Your task to perform on an android device: Go to notification settings Image 0: 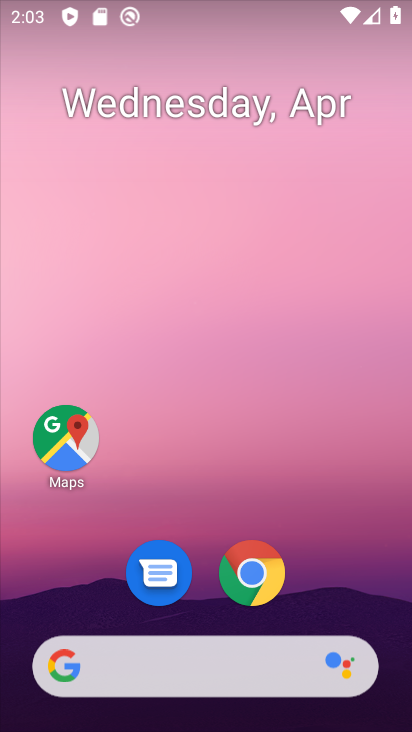
Step 0: drag from (365, 591) to (375, 262)
Your task to perform on an android device: Go to notification settings Image 1: 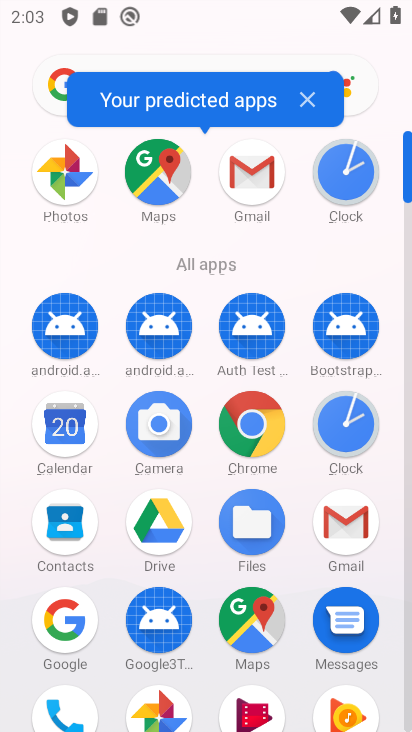
Step 1: drag from (300, 513) to (302, 334)
Your task to perform on an android device: Go to notification settings Image 2: 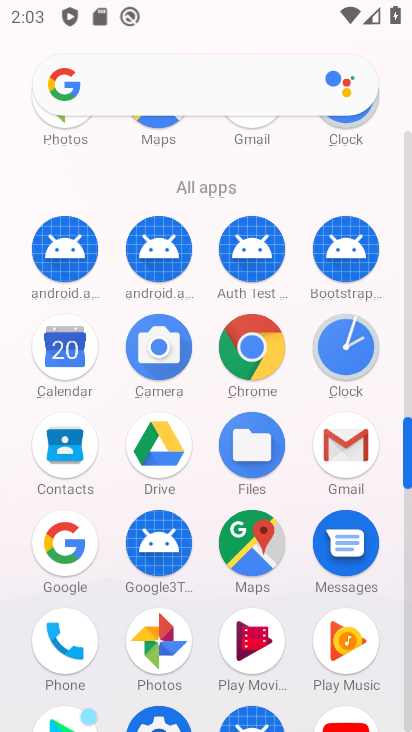
Step 2: drag from (296, 577) to (297, 360)
Your task to perform on an android device: Go to notification settings Image 3: 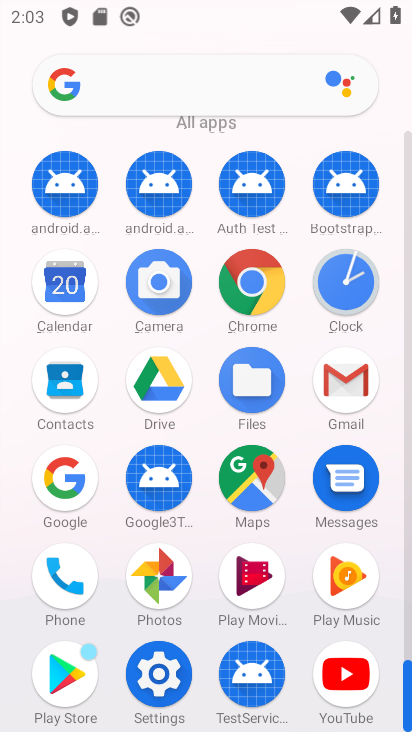
Step 3: click (158, 647)
Your task to perform on an android device: Go to notification settings Image 4: 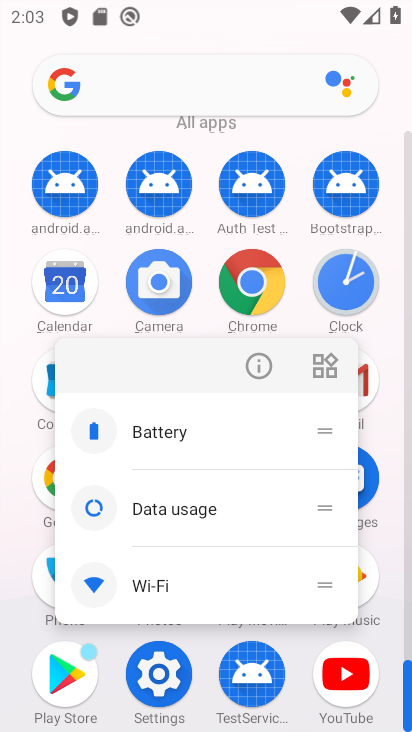
Step 4: click (165, 667)
Your task to perform on an android device: Go to notification settings Image 5: 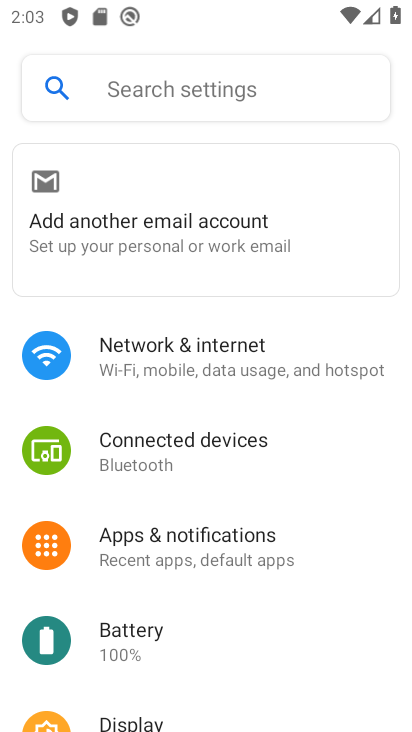
Step 5: drag from (359, 573) to (380, 331)
Your task to perform on an android device: Go to notification settings Image 6: 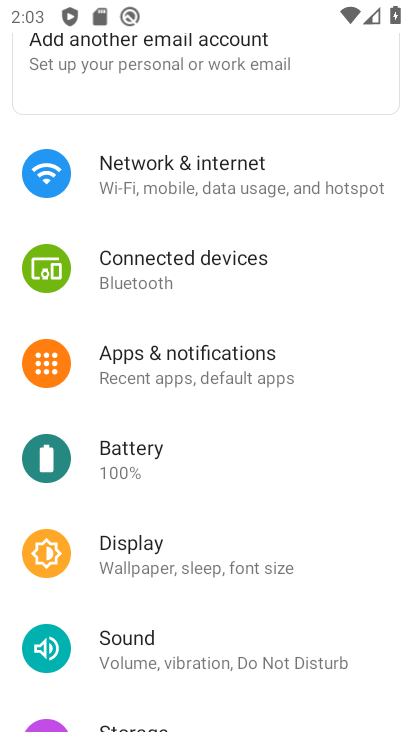
Step 6: drag from (358, 499) to (360, 354)
Your task to perform on an android device: Go to notification settings Image 7: 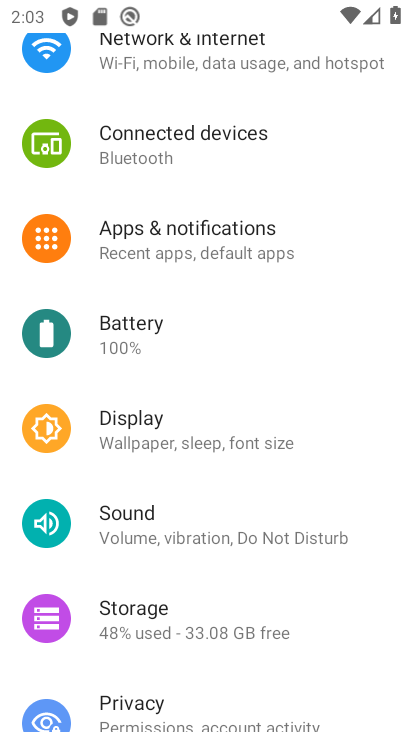
Step 7: click (207, 239)
Your task to perform on an android device: Go to notification settings Image 8: 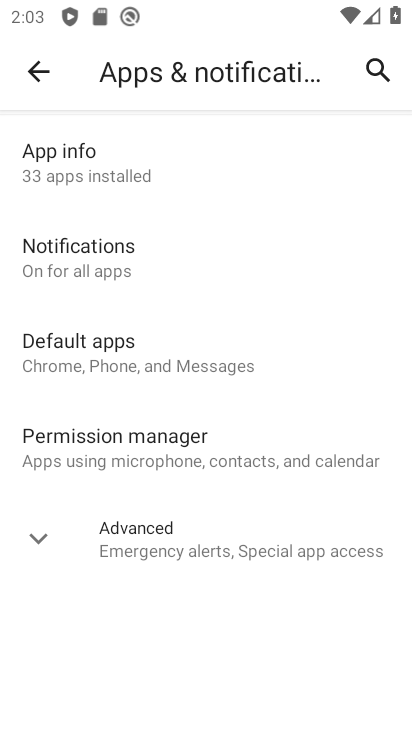
Step 8: click (99, 259)
Your task to perform on an android device: Go to notification settings Image 9: 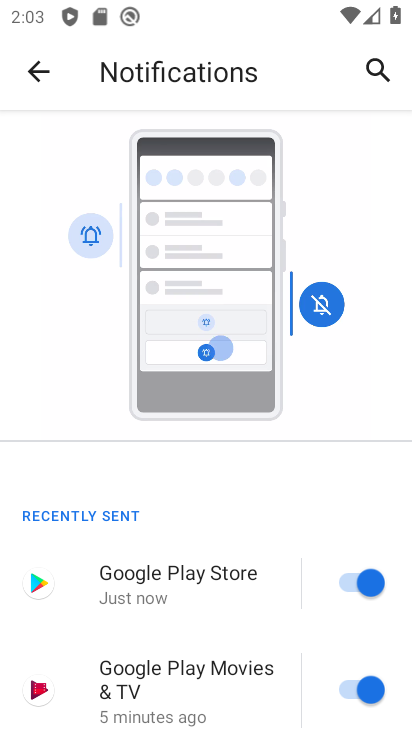
Step 9: task complete